Your task to perform on an android device: Search for pizza restaurants on Maps Image 0: 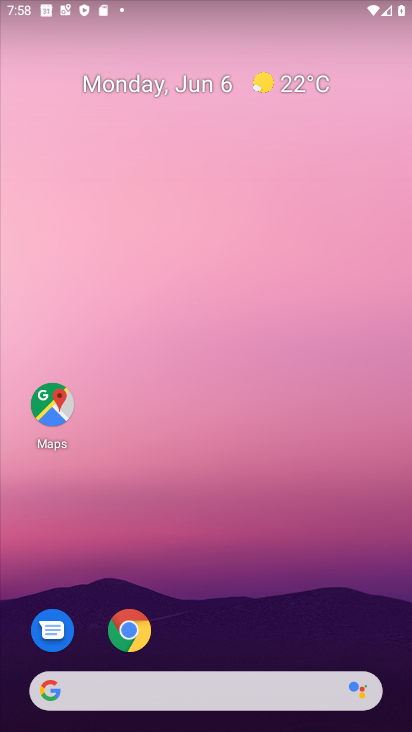
Step 0: click (58, 407)
Your task to perform on an android device: Search for pizza restaurants on Maps Image 1: 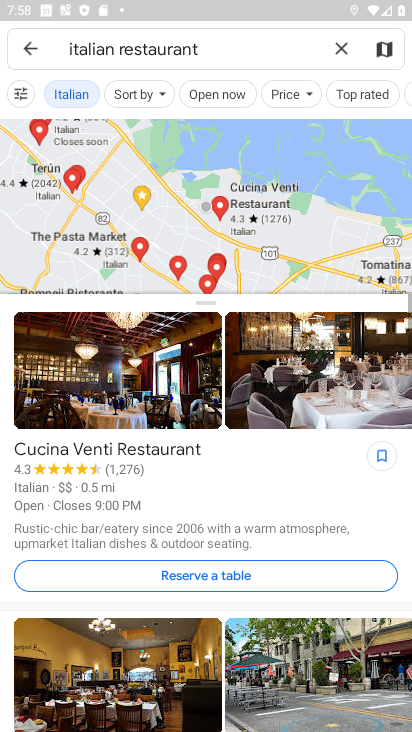
Step 1: click (341, 52)
Your task to perform on an android device: Search for pizza restaurants on Maps Image 2: 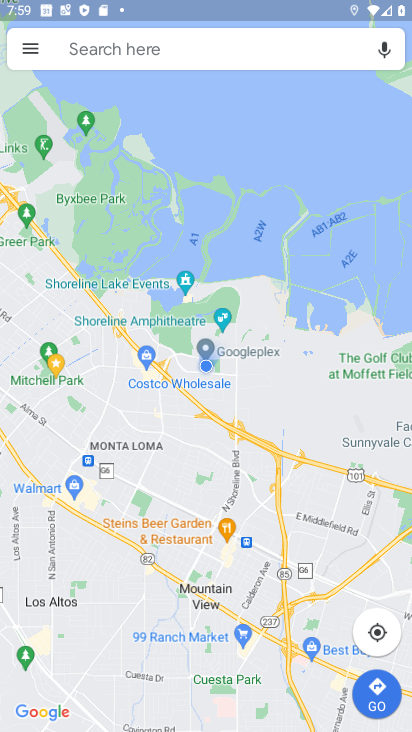
Step 2: type "pizza restaurants"
Your task to perform on an android device: Search for pizza restaurants on Maps Image 3: 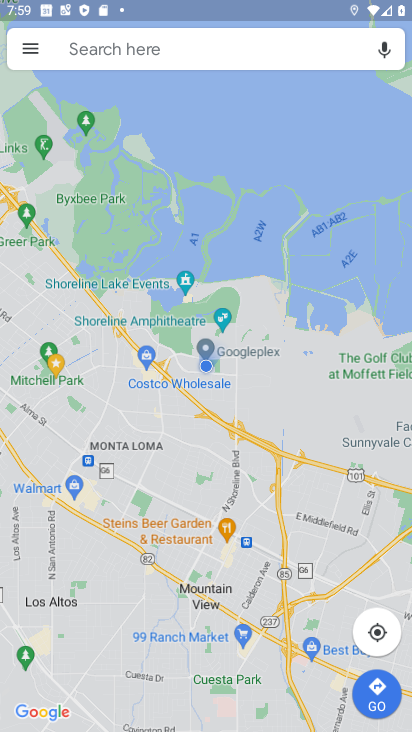
Step 3: click (177, 38)
Your task to perform on an android device: Search for pizza restaurants on Maps Image 4: 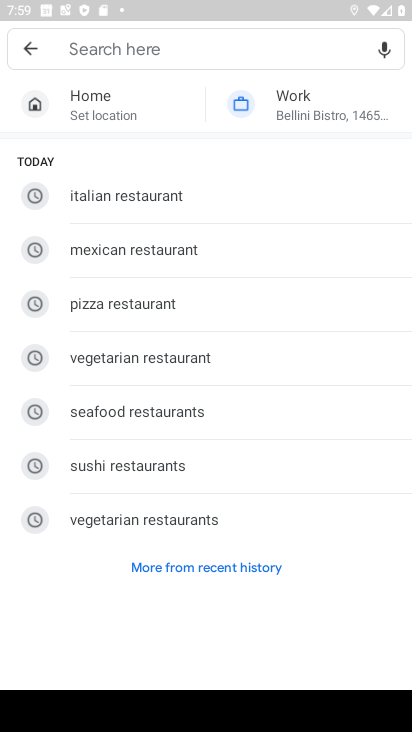
Step 4: click (146, 309)
Your task to perform on an android device: Search for pizza restaurants on Maps Image 5: 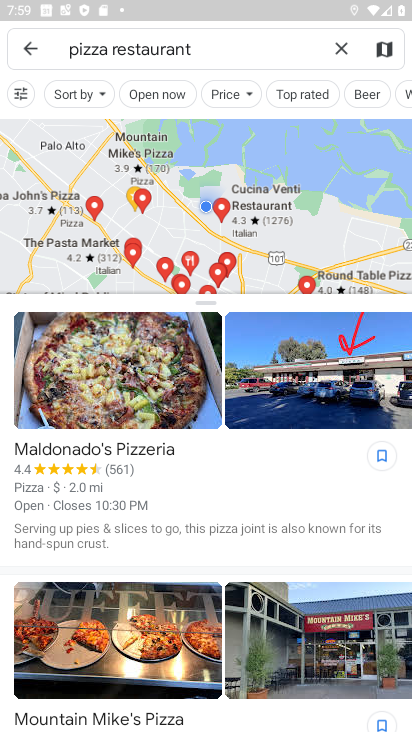
Step 5: task complete